Your task to perform on an android device: turn off location Image 0: 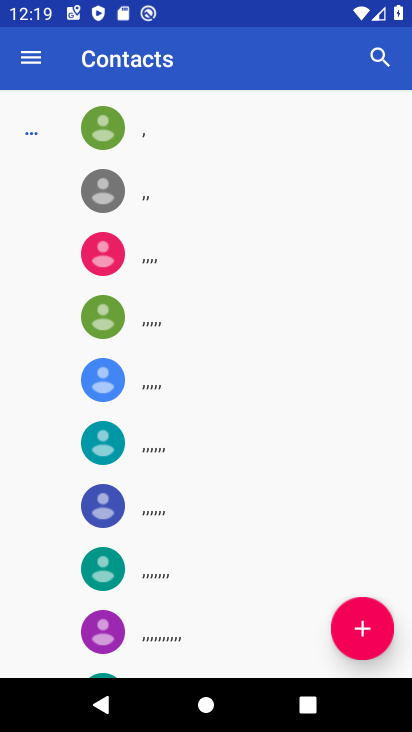
Step 0: drag from (266, 531) to (276, 291)
Your task to perform on an android device: turn off location Image 1: 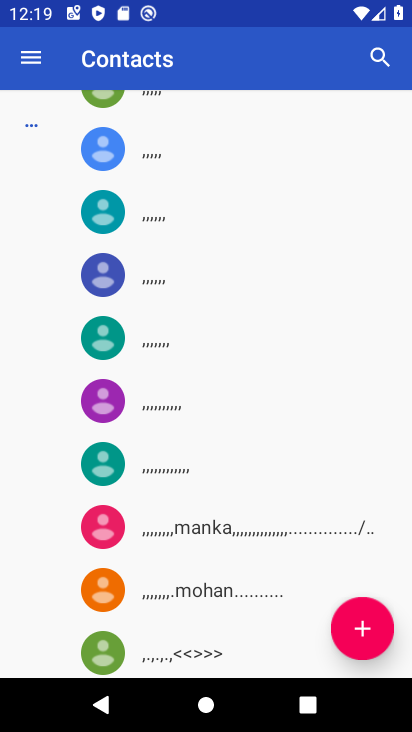
Step 1: press home button
Your task to perform on an android device: turn off location Image 2: 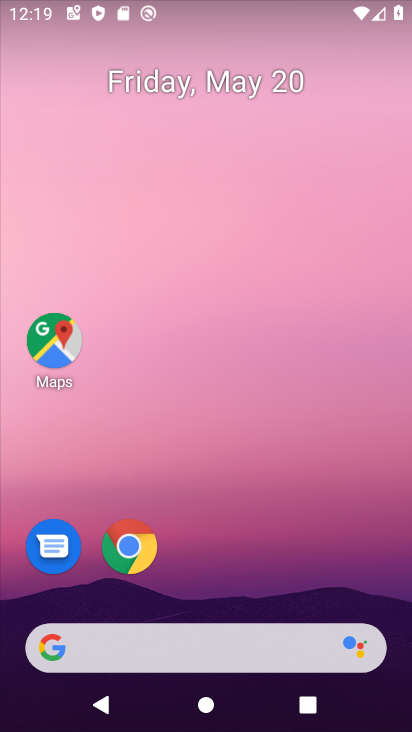
Step 2: drag from (227, 548) to (260, 67)
Your task to perform on an android device: turn off location Image 3: 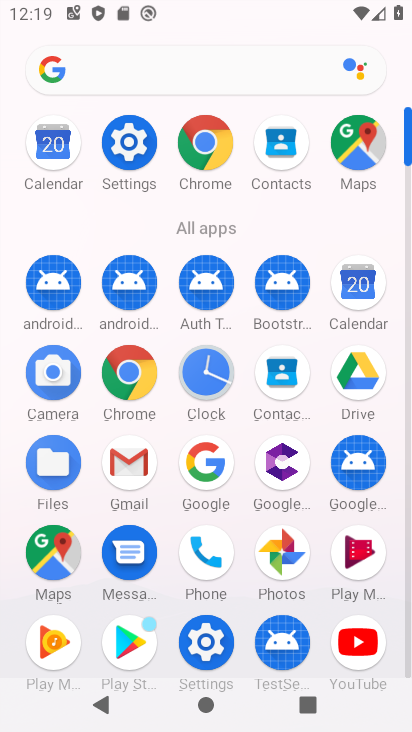
Step 3: click (126, 134)
Your task to perform on an android device: turn off location Image 4: 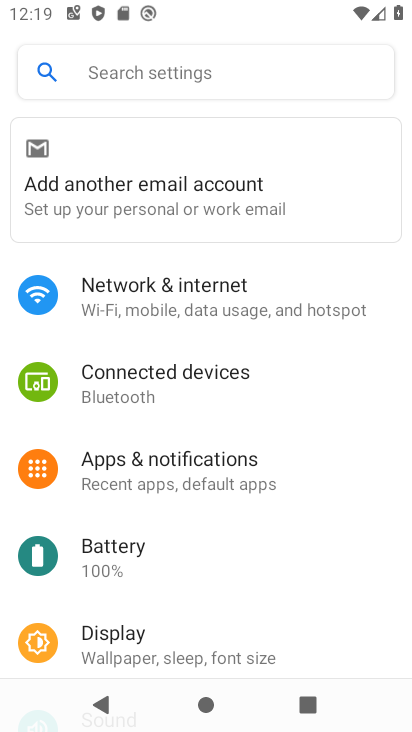
Step 4: drag from (176, 574) to (219, 152)
Your task to perform on an android device: turn off location Image 5: 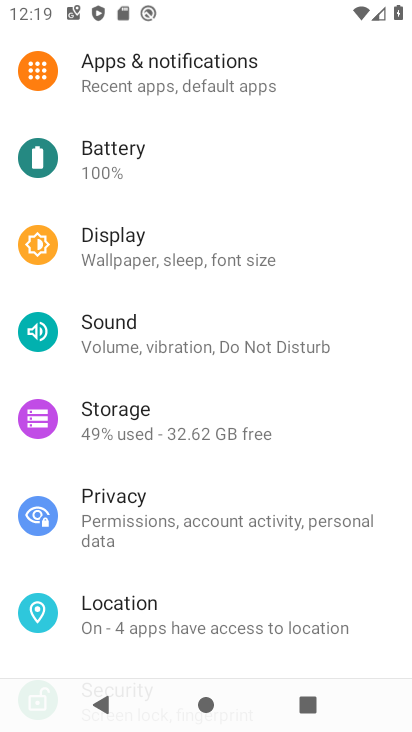
Step 5: click (194, 609)
Your task to perform on an android device: turn off location Image 6: 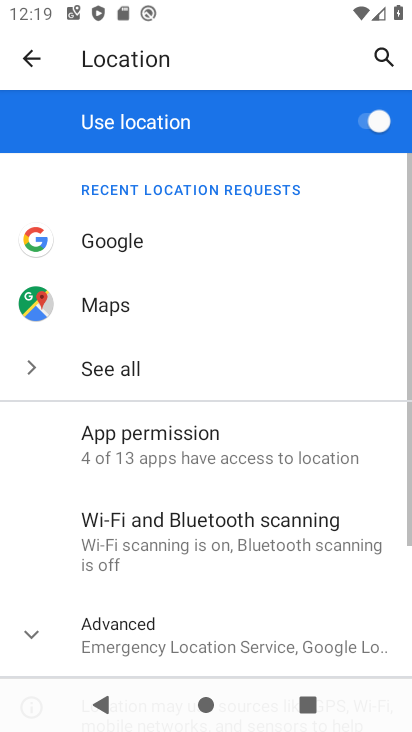
Step 6: click (361, 121)
Your task to perform on an android device: turn off location Image 7: 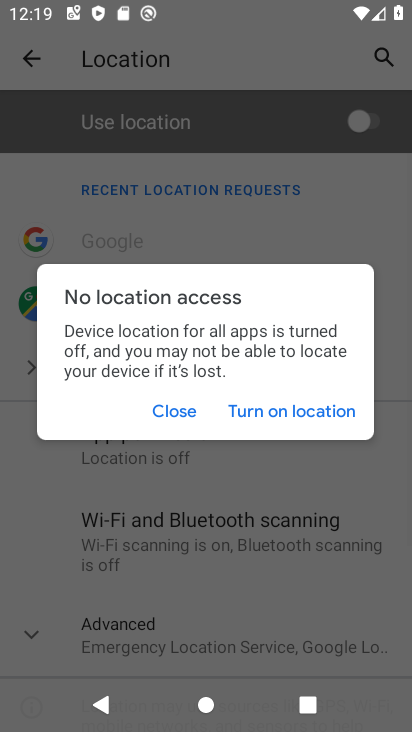
Step 7: task complete